Your task to perform on an android device: clear all cookies in the chrome app Image 0: 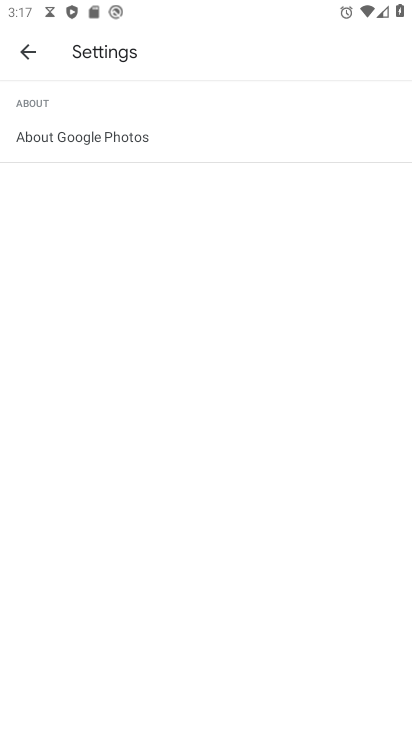
Step 0: press home button
Your task to perform on an android device: clear all cookies in the chrome app Image 1: 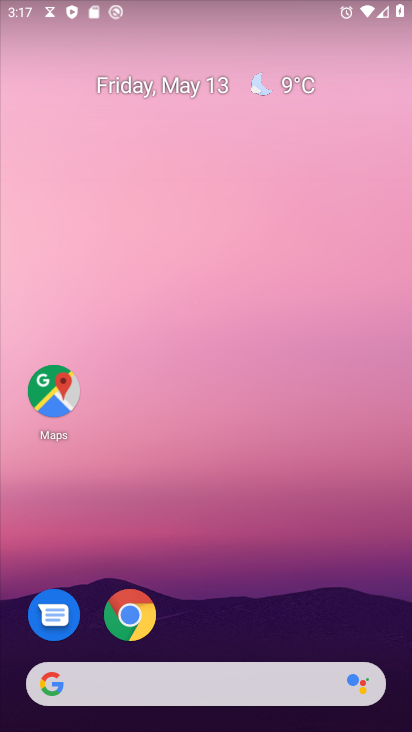
Step 1: click (125, 613)
Your task to perform on an android device: clear all cookies in the chrome app Image 2: 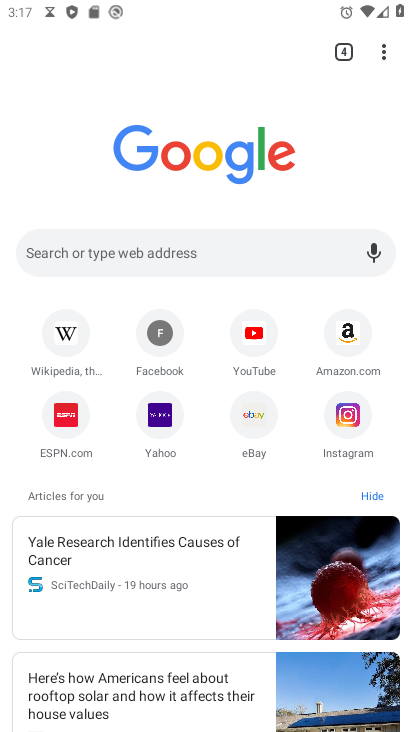
Step 2: click (386, 52)
Your task to perform on an android device: clear all cookies in the chrome app Image 3: 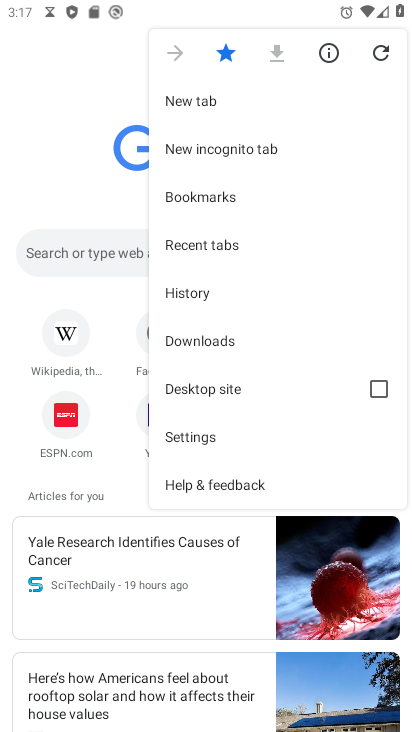
Step 3: click (199, 433)
Your task to perform on an android device: clear all cookies in the chrome app Image 4: 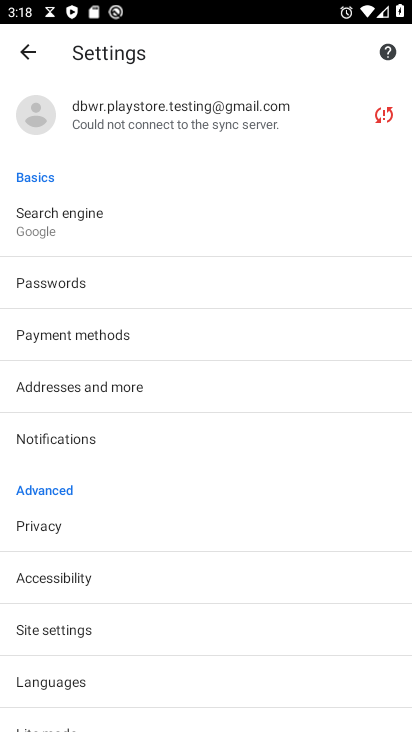
Step 4: click (77, 530)
Your task to perform on an android device: clear all cookies in the chrome app Image 5: 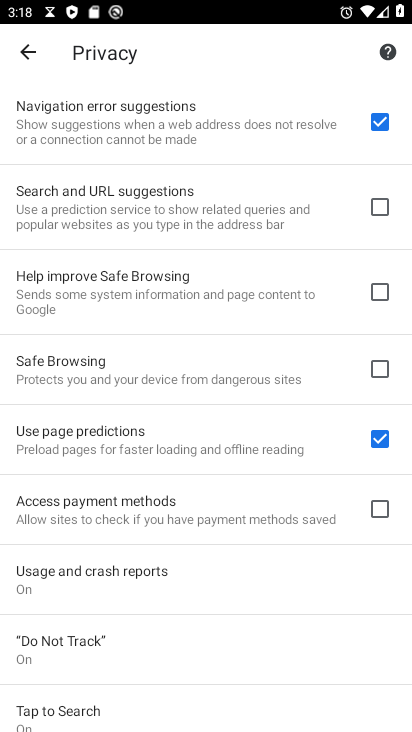
Step 5: drag from (120, 673) to (120, 307)
Your task to perform on an android device: clear all cookies in the chrome app Image 6: 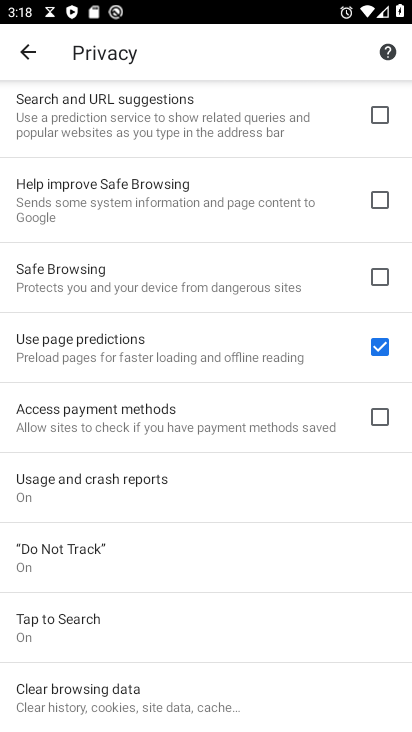
Step 6: click (143, 697)
Your task to perform on an android device: clear all cookies in the chrome app Image 7: 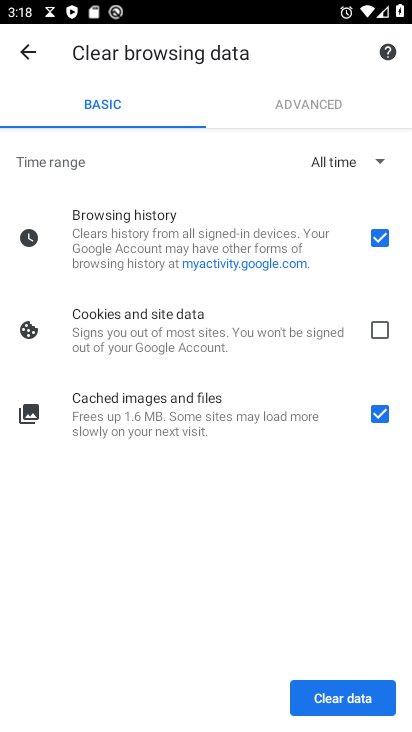
Step 7: click (385, 325)
Your task to perform on an android device: clear all cookies in the chrome app Image 8: 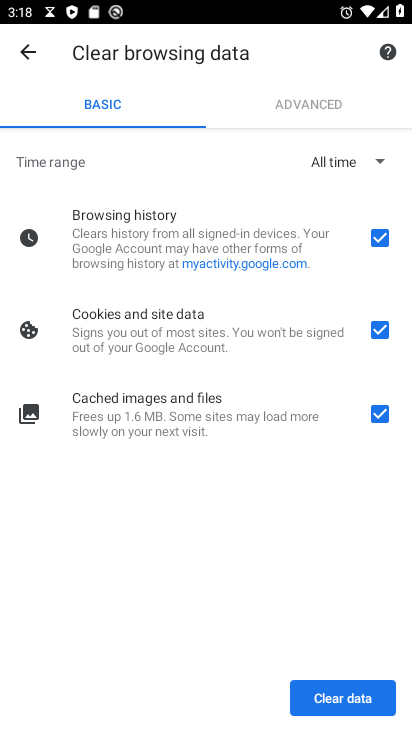
Step 8: click (381, 413)
Your task to perform on an android device: clear all cookies in the chrome app Image 9: 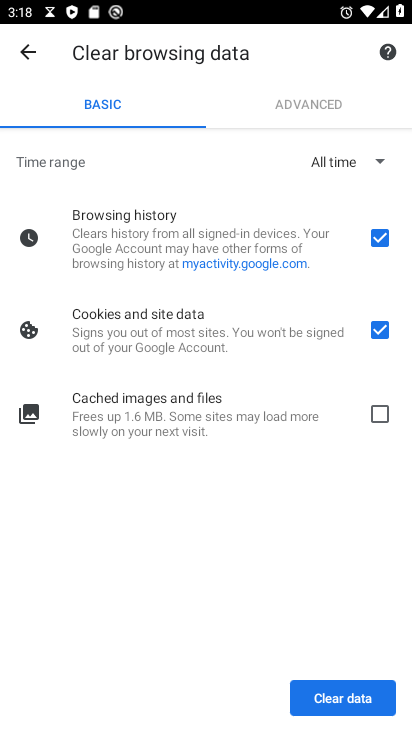
Step 9: click (384, 232)
Your task to perform on an android device: clear all cookies in the chrome app Image 10: 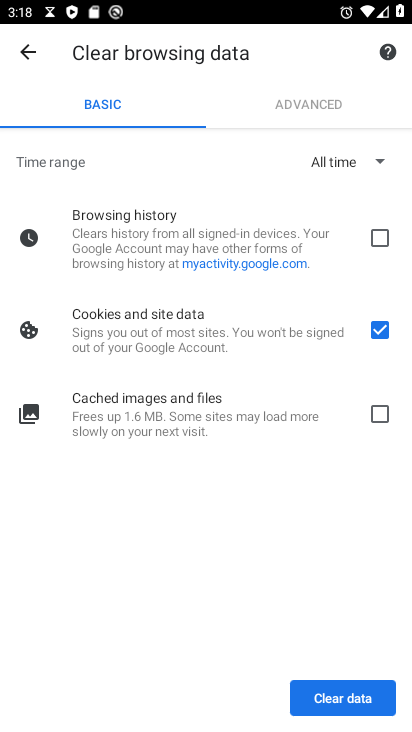
Step 10: click (342, 694)
Your task to perform on an android device: clear all cookies in the chrome app Image 11: 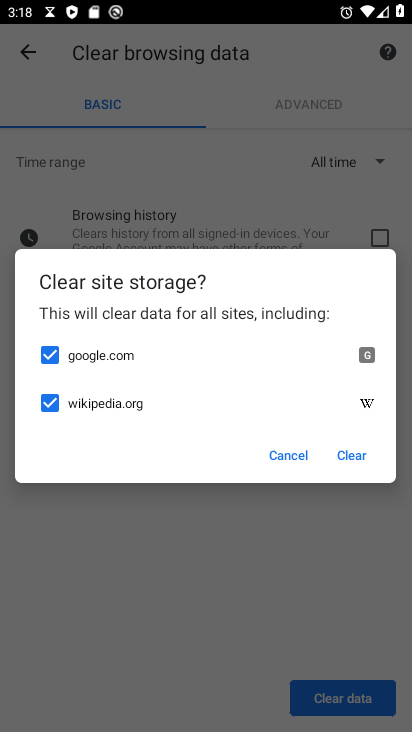
Step 11: click (357, 452)
Your task to perform on an android device: clear all cookies in the chrome app Image 12: 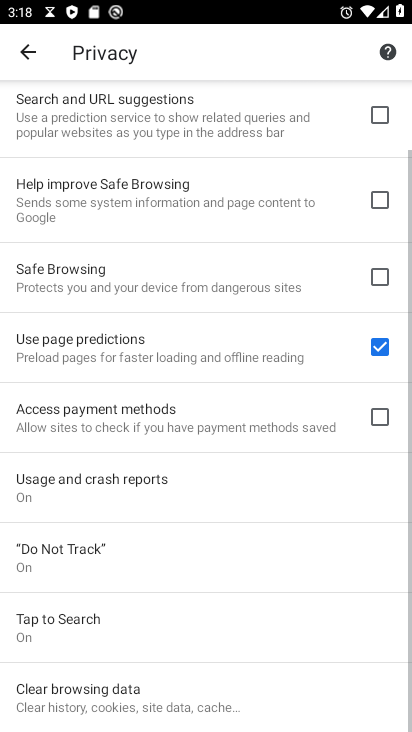
Step 12: task complete